Your task to perform on an android device: open wifi settings Image 0: 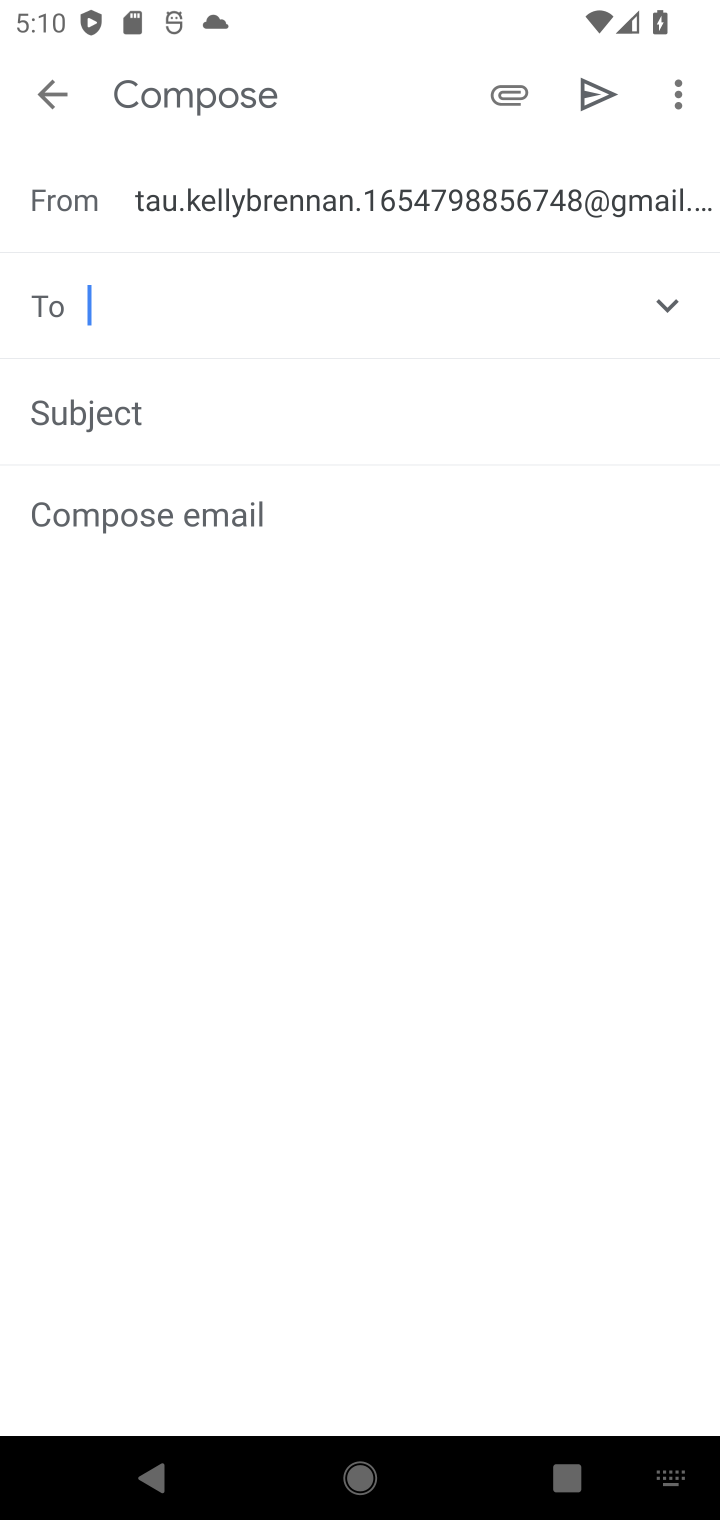
Step 0: press home button
Your task to perform on an android device: open wifi settings Image 1: 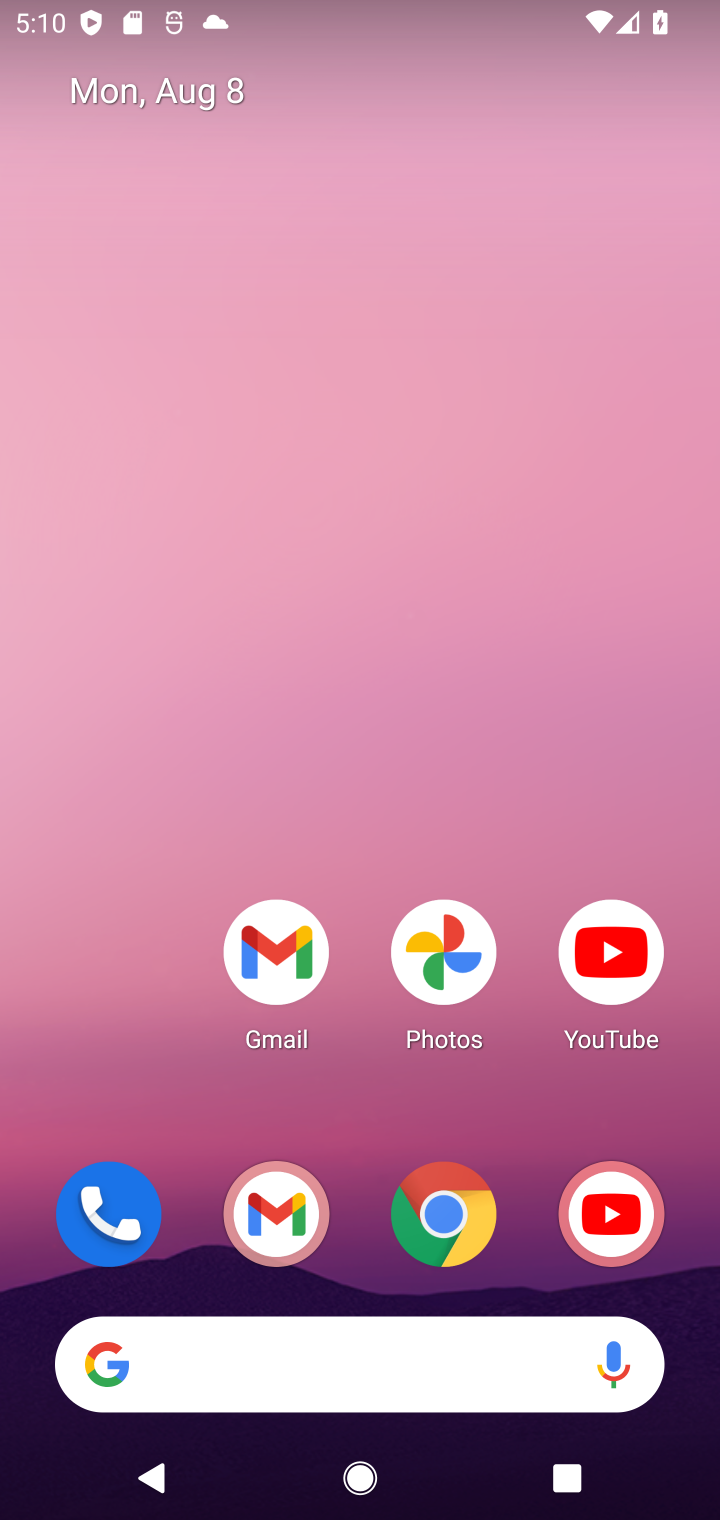
Step 1: drag from (374, 914) to (298, 82)
Your task to perform on an android device: open wifi settings Image 2: 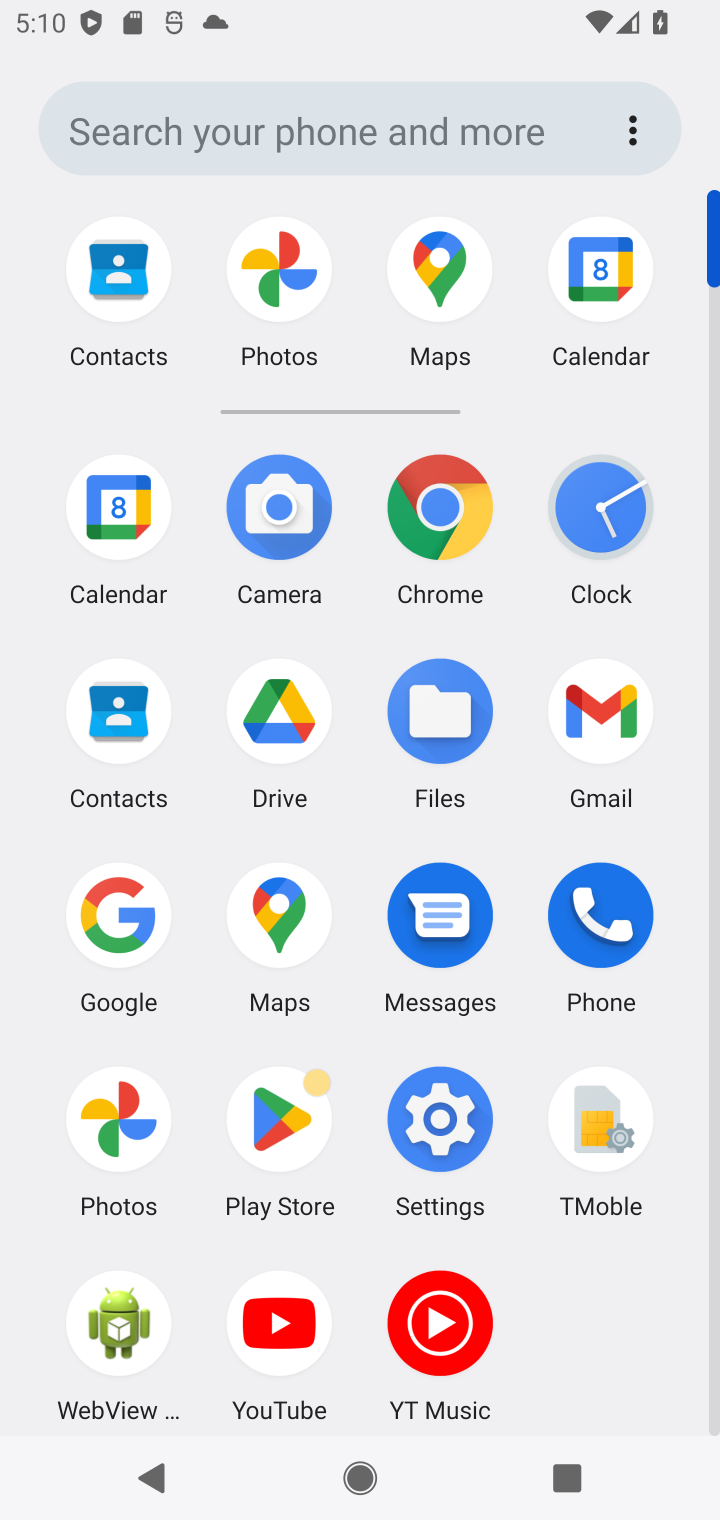
Step 2: click (428, 1130)
Your task to perform on an android device: open wifi settings Image 3: 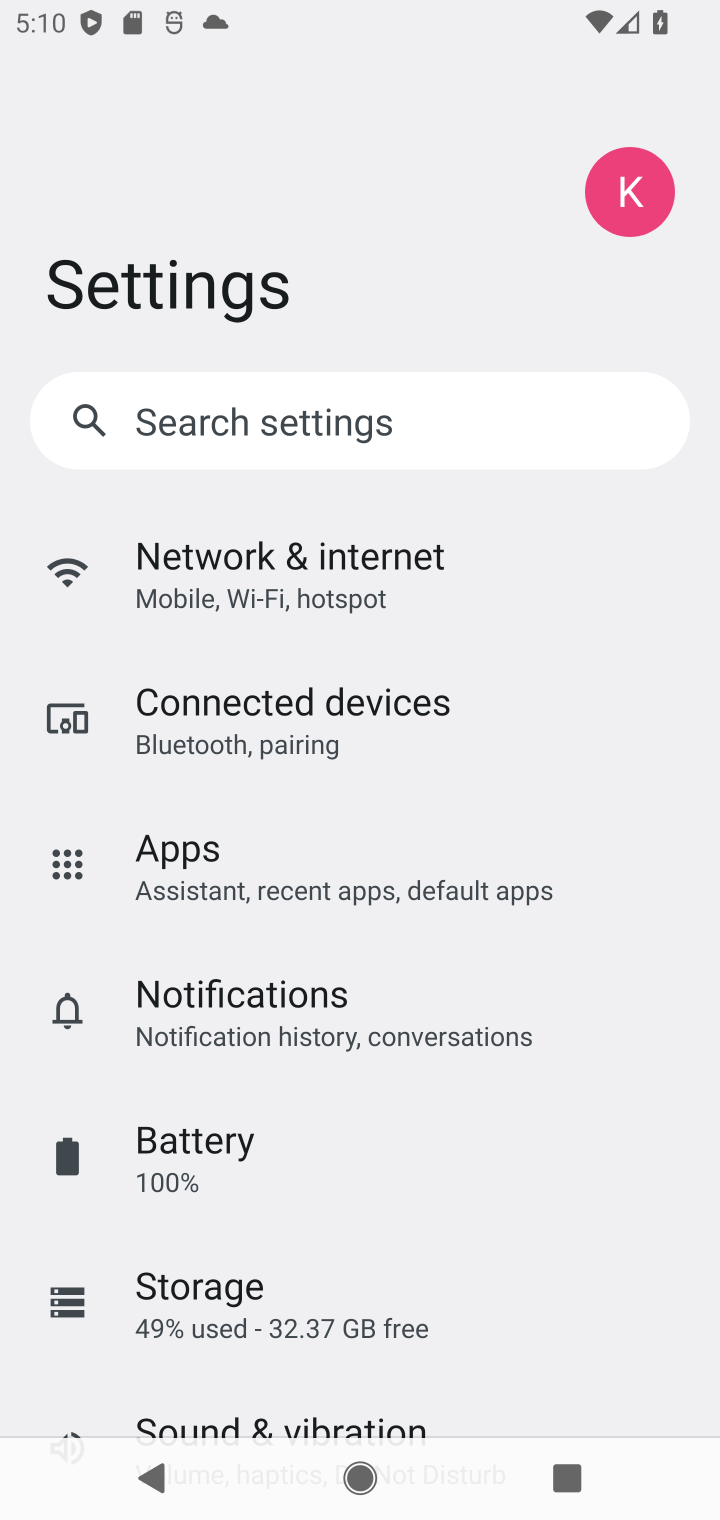
Step 3: click (215, 557)
Your task to perform on an android device: open wifi settings Image 4: 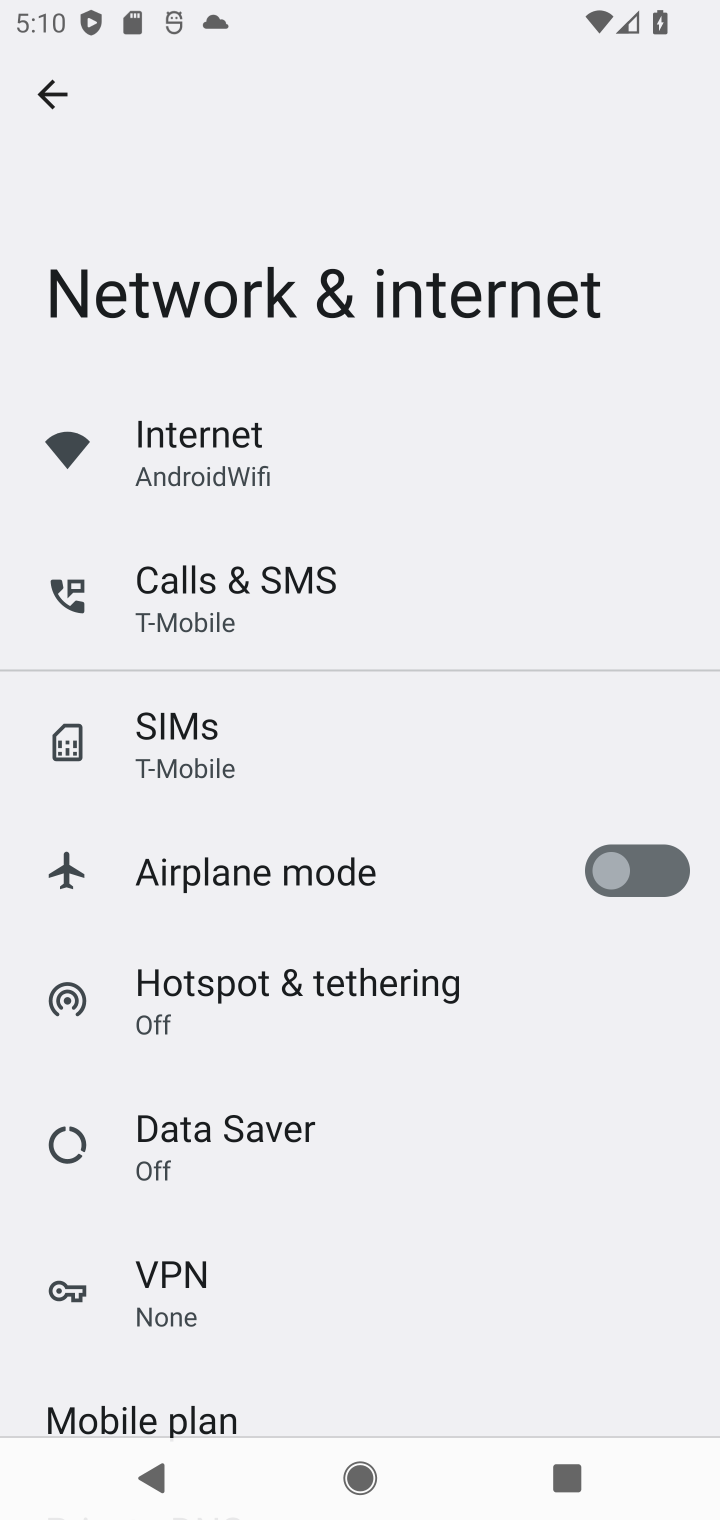
Step 4: click (202, 452)
Your task to perform on an android device: open wifi settings Image 5: 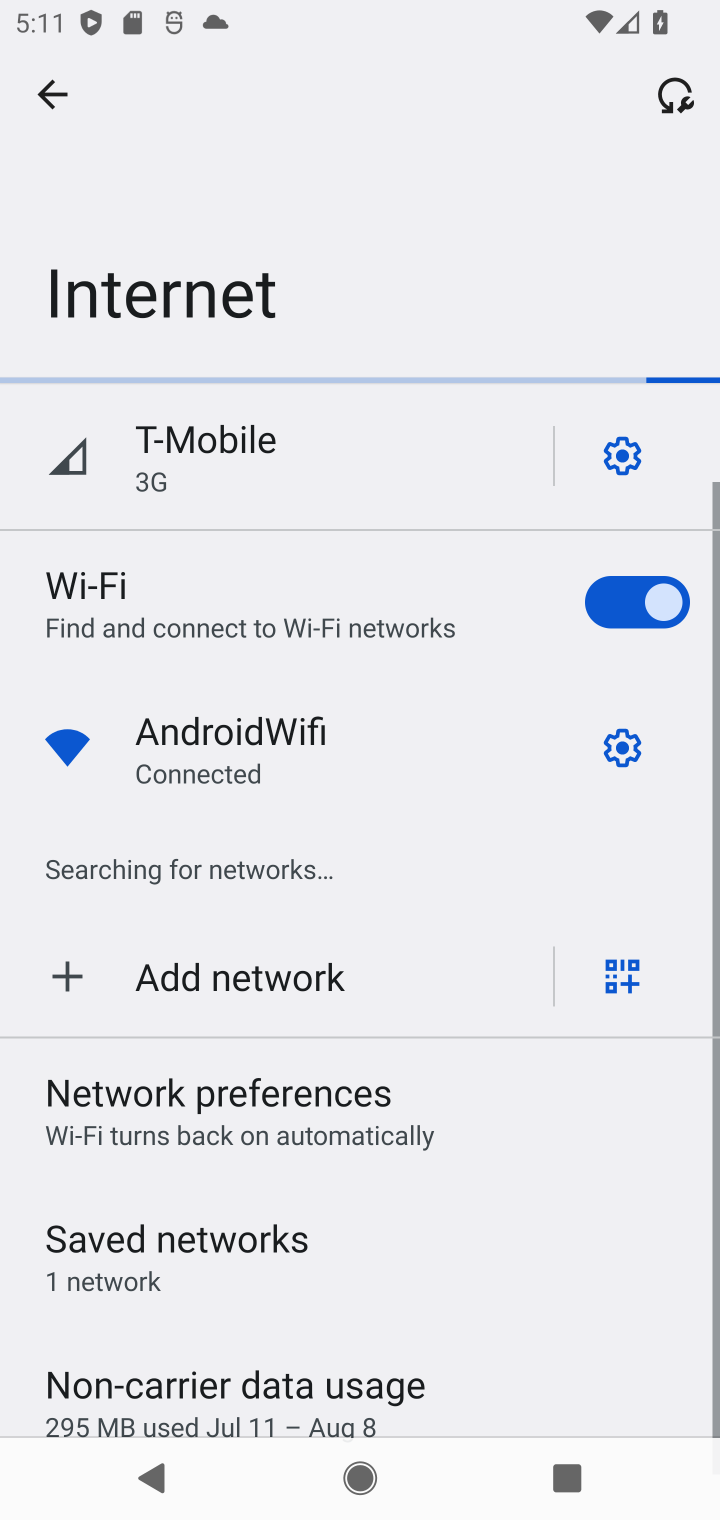
Step 5: click (181, 479)
Your task to perform on an android device: open wifi settings Image 6: 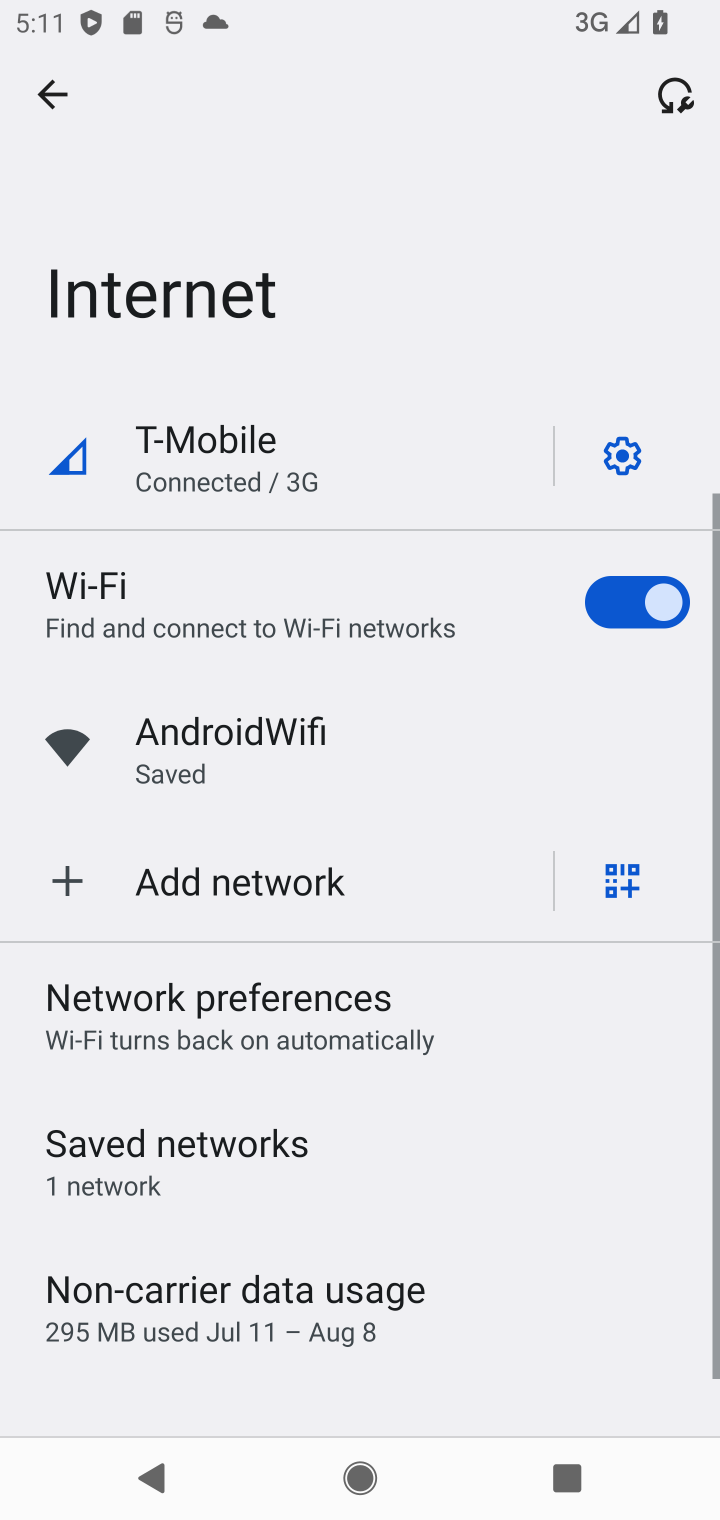
Step 6: task complete